Your task to perform on an android device: turn off priority inbox in the gmail app Image 0: 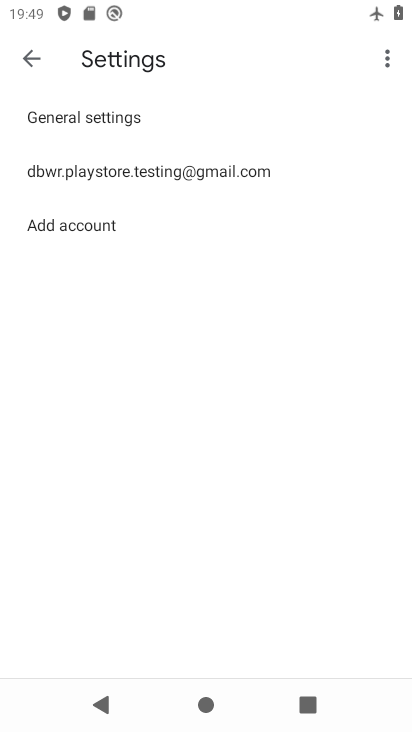
Step 0: press home button
Your task to perform on an android device: turn off priority inbox in the gmail app Image 1: 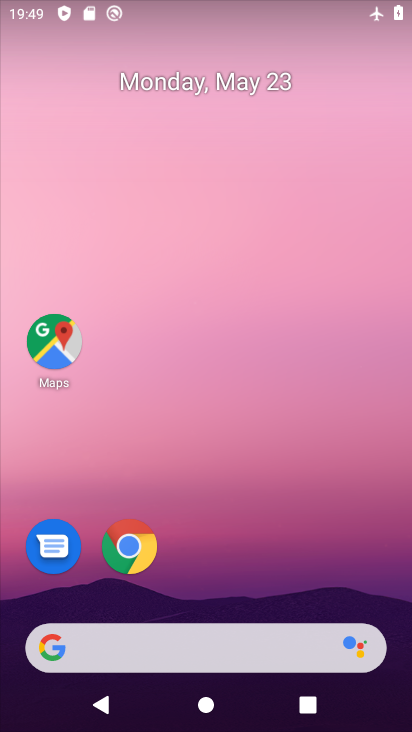
Step 1: drag from (387, 593) to (367, 305)
Your task to perform on an android device: turn off priority inbox in the gmail app Image 2: 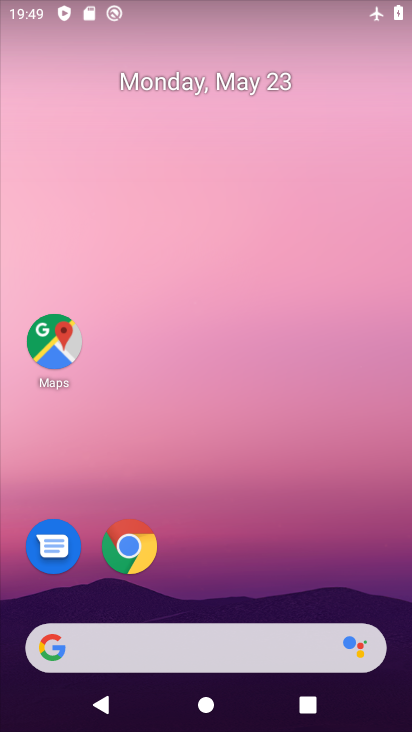
Step 2: drag from (388, 584) to (374, 220)
Your task to perform on an android device: turn off priority inbox in the gmail app Image 3: 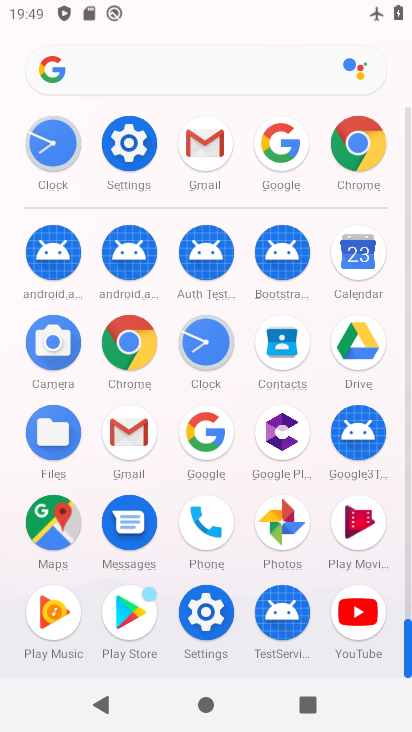
Step 3: click (121, 455)
Your task to perform on an android device: turn off priority inbox in the gmail app Image 4: 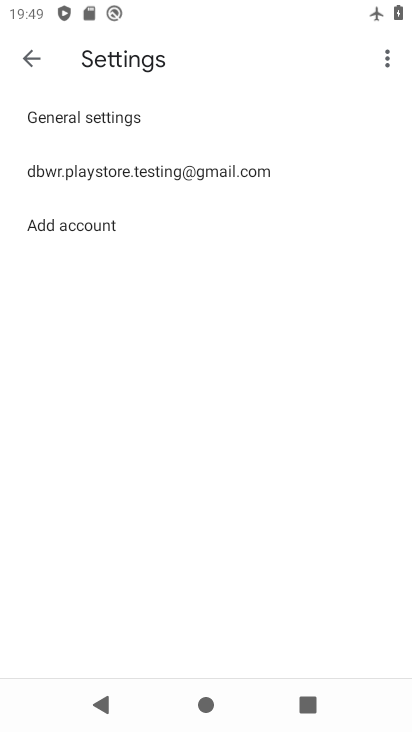
Step 4: click (198, 180)
Your task to perform on an android device: turn off priority inbox in the gmail app Image 5: 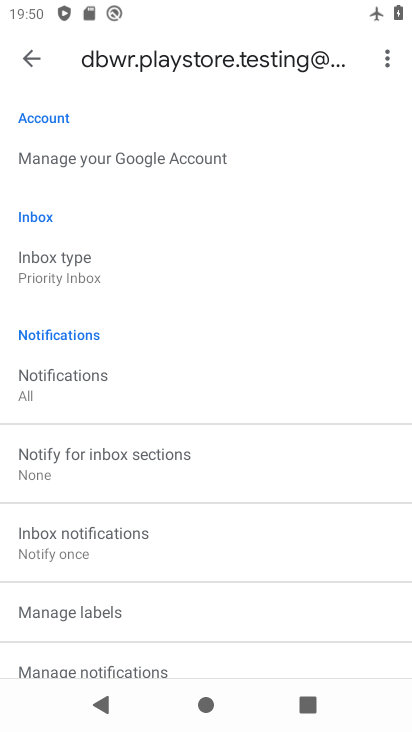
Step 5: drag from (314, 532) to (320, 443)
Your task to perform on an android device: turn off priority inbox in the gmail app Image 6: 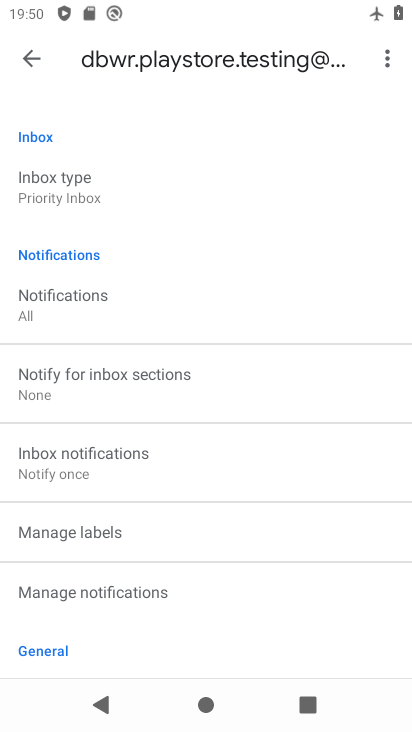
Step 6: drag from (330, 587) to (335, 481)
Your task to perform on an android device: turn off priority inbox in the gmail app Image 7: 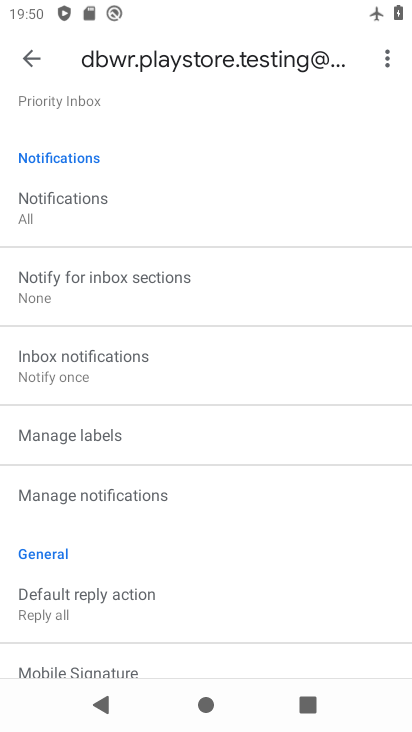
Step 7: drag from (343, 588) to (347, 496)
Your task to perform on an android device: turn off priority inbox in the gmail app Image 8: 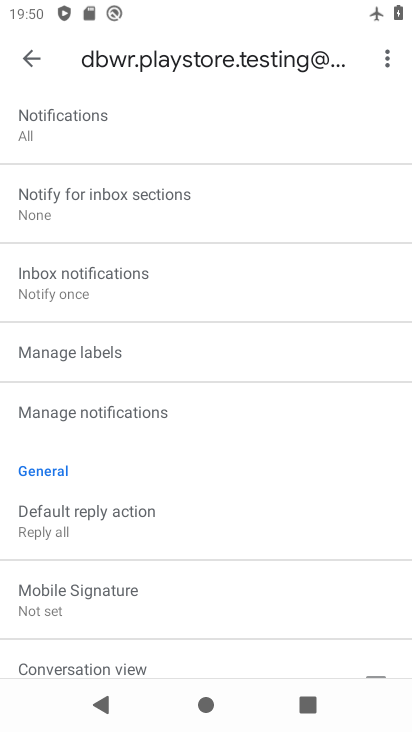
Step 8: drag from (340, 623) to (343, 511)
Your task to perform on an android device: turn off priority inbox in the gmail app Image 9: 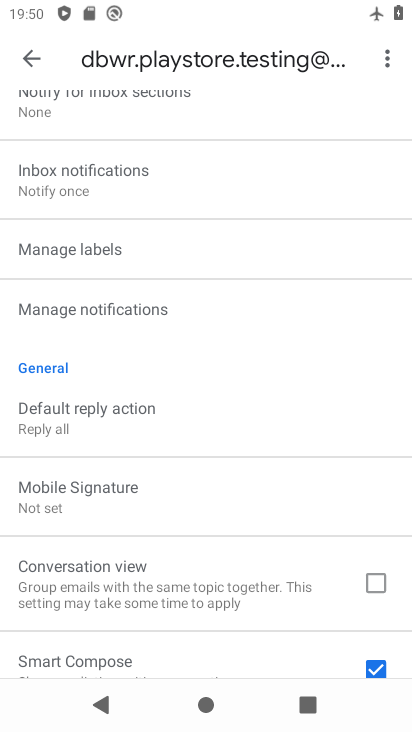
Step 9: drag from (324, 621) to (330, 517)
Your task to perform on an android device: turn off priority inbox in the gmail app Image 10: 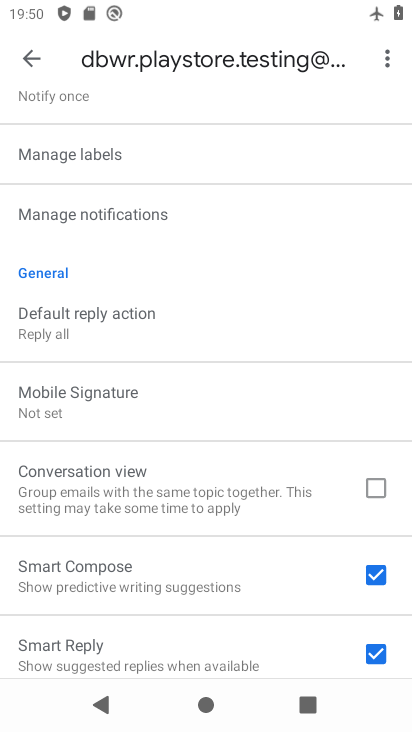
Step 10: drag from (318, 618) to (314, 504)
Your task to perform on an android device: turn off priority inbox in the gmail app Image 11: 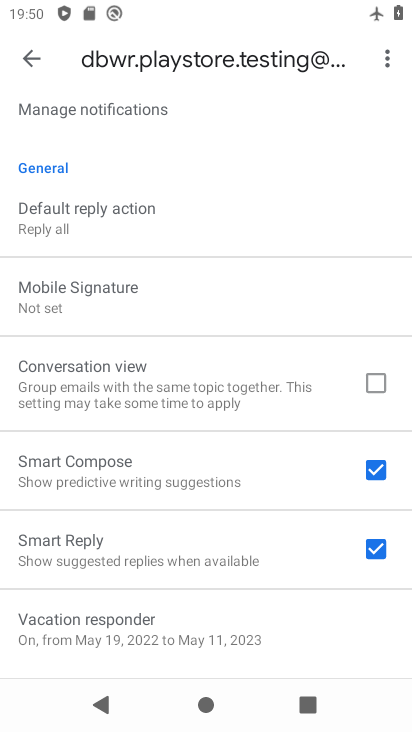
Step 11: drag from (316, 625) to (314, 514)
Your task to perform on an android device: turn off priority inbox in the gmail app Image 12: 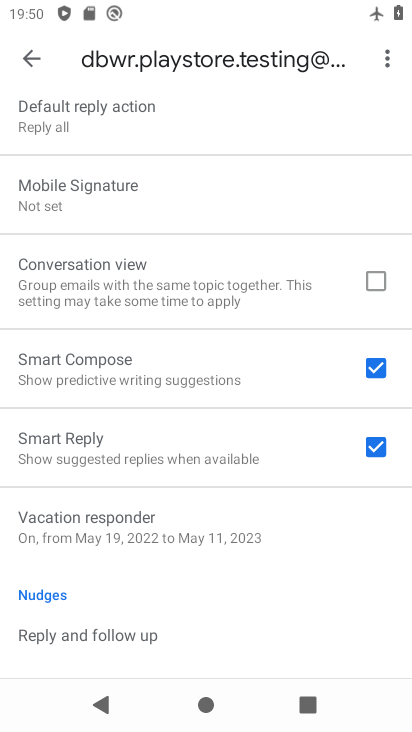
Step 12: drag from (321, 622) to (328, 510)
Your task to perform on an android device: turn off priority inbox in the gmail app Image 13: 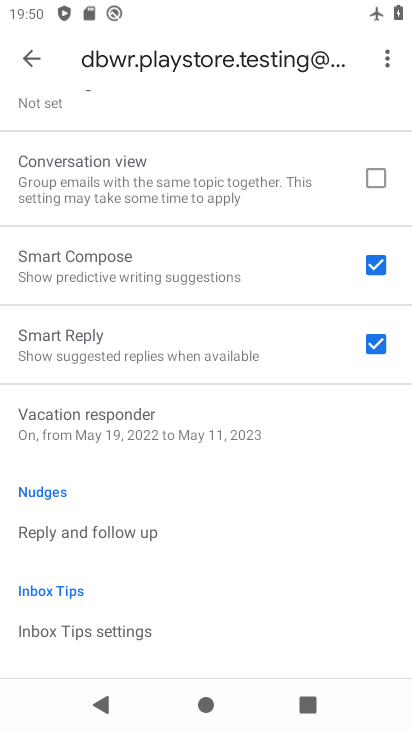
Step 13: drag from (342, 604) to (344, 508)
Your task to perform on an android device: turn off priority inbox in the gmail app Image 14: 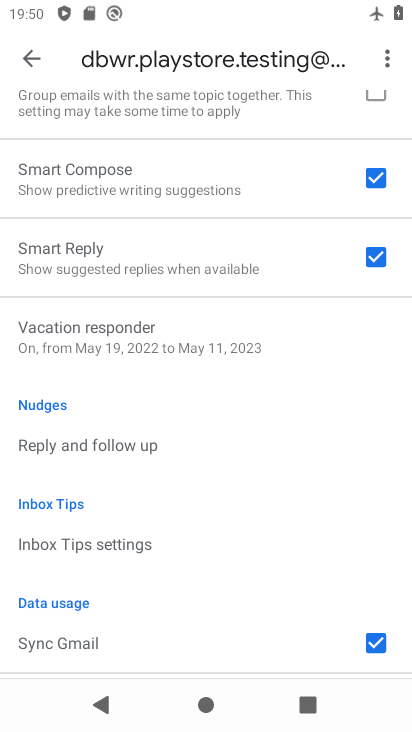
Step 14: drag from (316, 619) to (316, 471)
Your task to perform on an android device: turn off priority inbox in the gmail app Image 15: 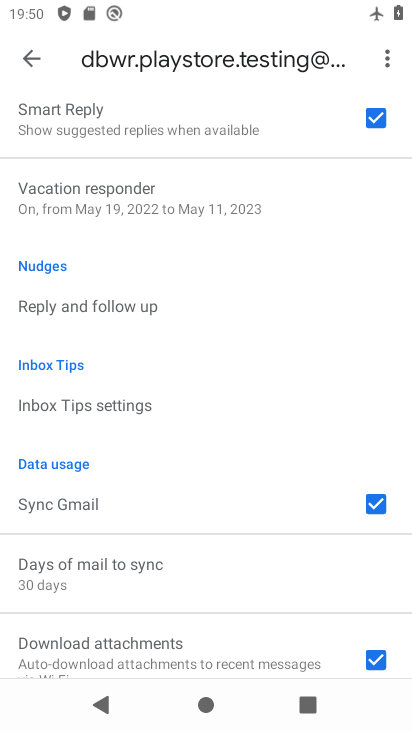
Step 15: drag from (307, 631) to (307, 508)
Your task to perform on an android device: turn off priority inbox in the gmail app Image 16: 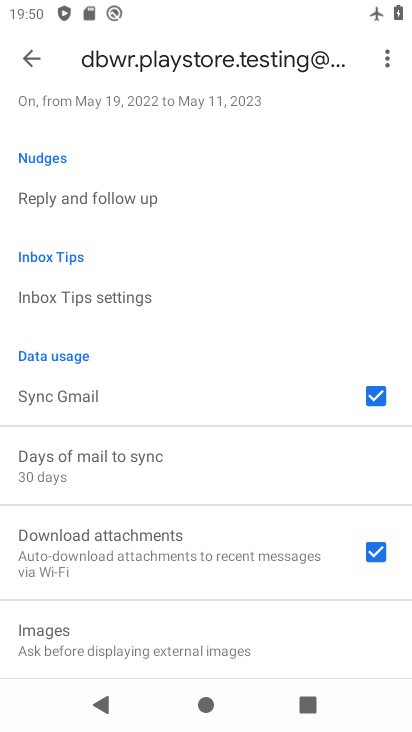
Step 16: drag from (317, 408) to (317, 509)
Your task to perform on an android device: turn off priority inbox in the gmail app Image 17: 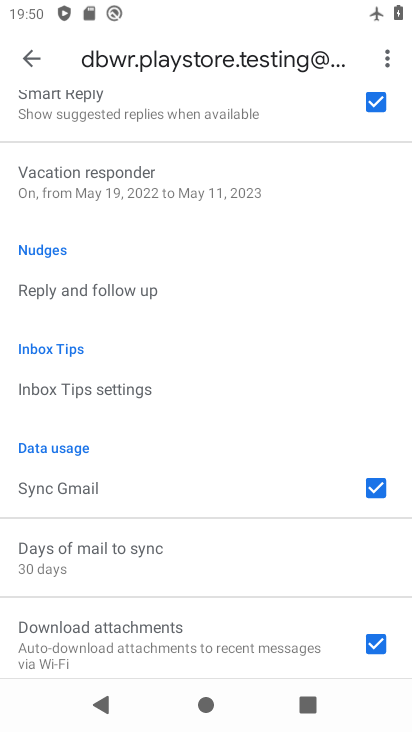
Step 17: drag from (316, 353) to (318, 462)
Your task to perform on an android device: turn off priority inbox in the gmail app Image 18: 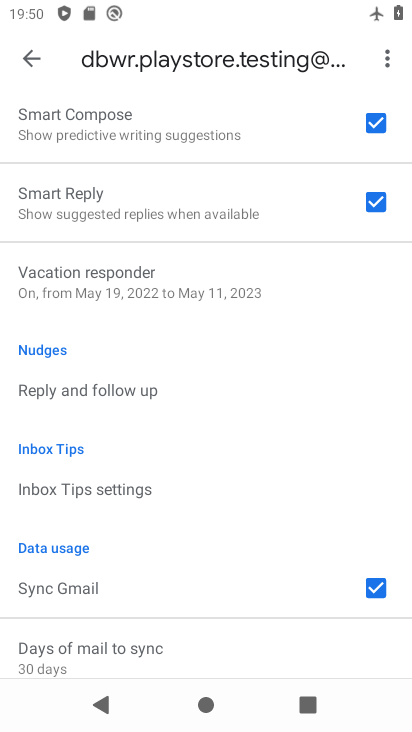
Step 18: drag from (305, 298) to (303, 427)
Your task to perform on an android device: turn off priority inbox in the gmail app Image 19: 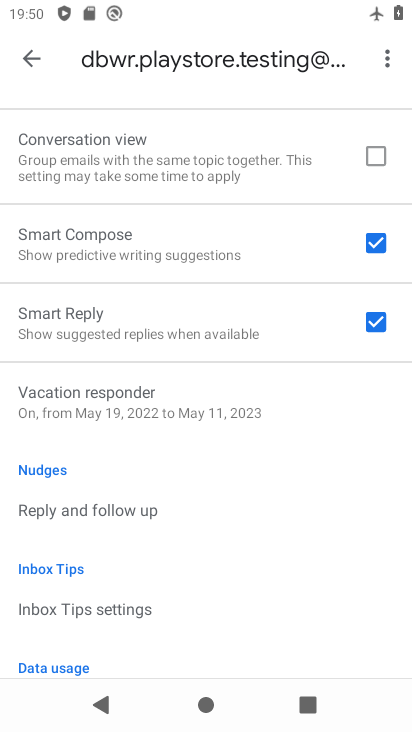
Step 19: drag from (300, 289) to (312, 419)
Your task to perform on an android device: turn off priority inbox in the gmail app Image 20: 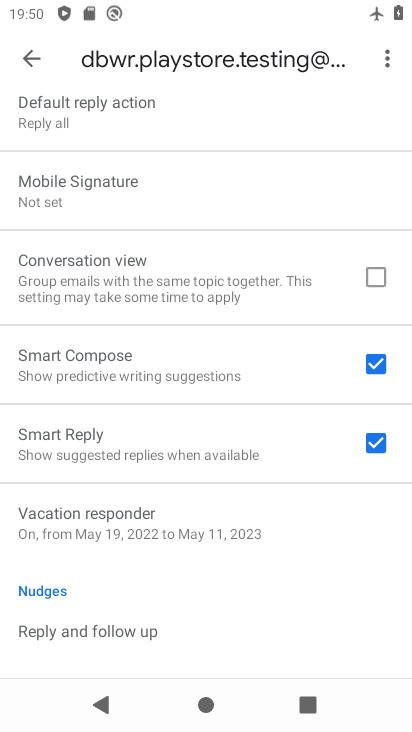
Step 20: drag from (304, 309) to (297, 475)
Your task to perform on an android device: turn off priority inbox in the gmail app Image 21: 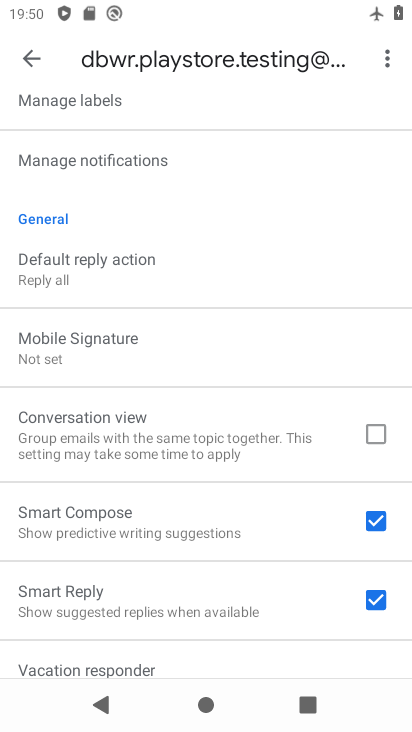
Step 21: drag from (305, 249) to (288, 461)
Your task to perform on an android device: turn off priority inbox in the gmail app Image 22: 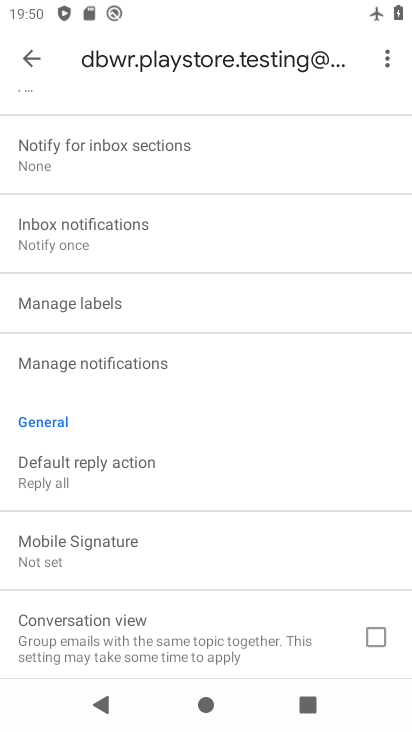
Step 22: drag from (300, 240) to (282, 438)
Your task to perform on an android device: turn off priority inbox in the gmail app Image 23: 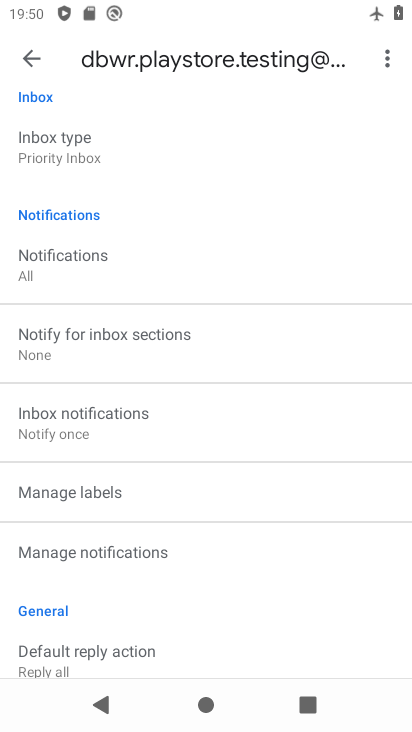
Step 23: drag from (277, 232) to (274, 371)
Your task to perform on an android device: turn off priority inbox in the gmail app Image 24: 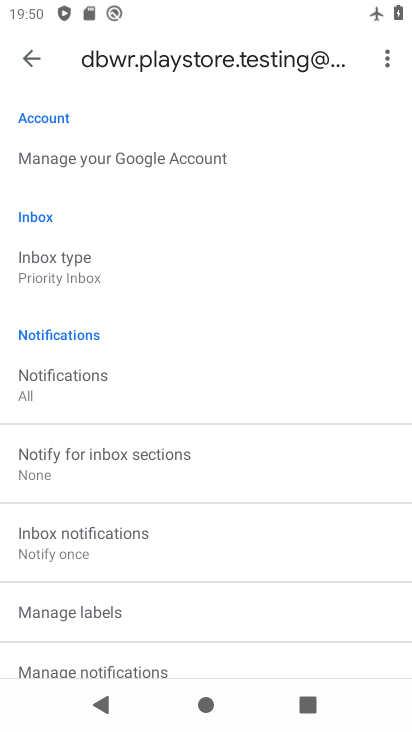
Step 24: drag from (273, 243) to (255, 368)
Your task to perform on an android device: turn off priority inbox in the gmail app Image 25: 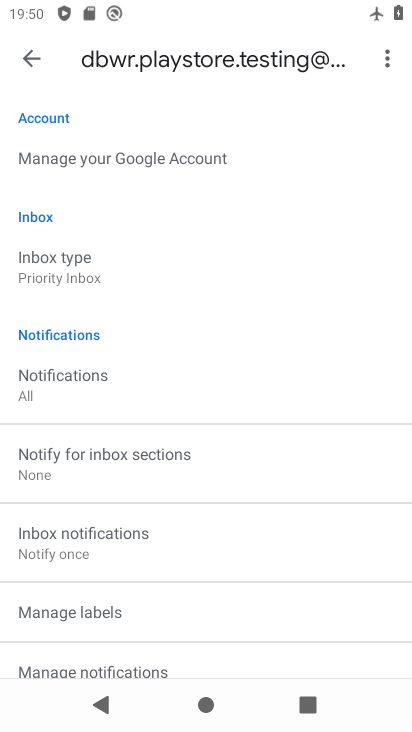
Step 25: click (81, 281)
Your task to perform on an android device: turn off priority inbox in the gmail app Image 26: 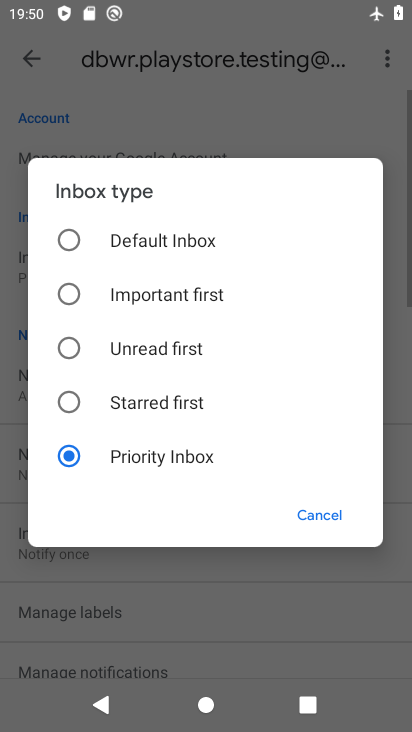
Step 26: click (201, 263)
Your task to perform on an android device: turn off priority inbox in the gmail app Image 27: 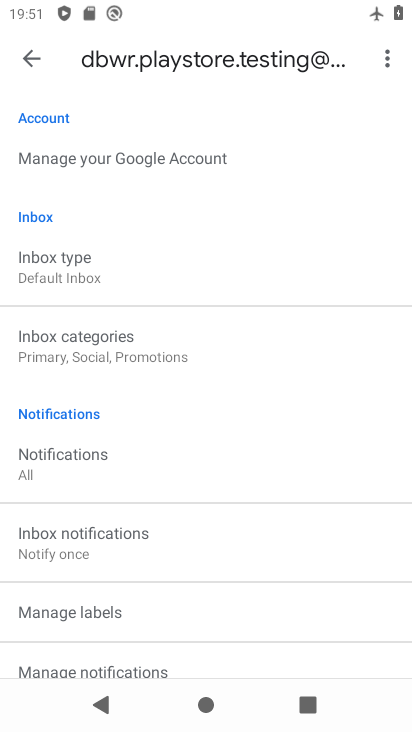
Step 27: task complete